Your task to perform on an android device: choose inbox layout in the gmail app Image 0: 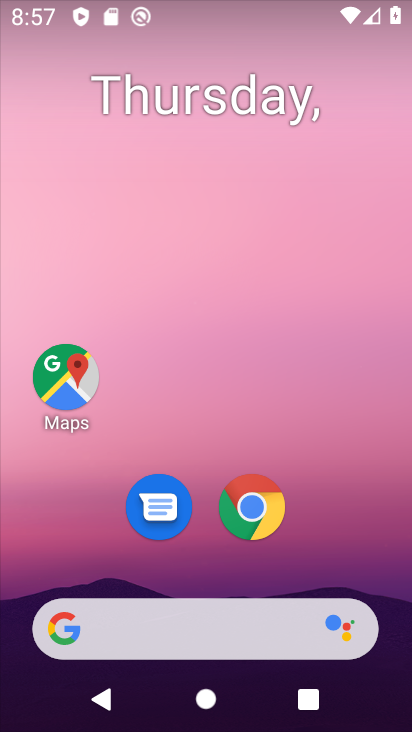
Step 0: drag from (193, 566) to (132, 14)
Your task to perform on an android device: choose inbox layout in the gmail app Image 1: 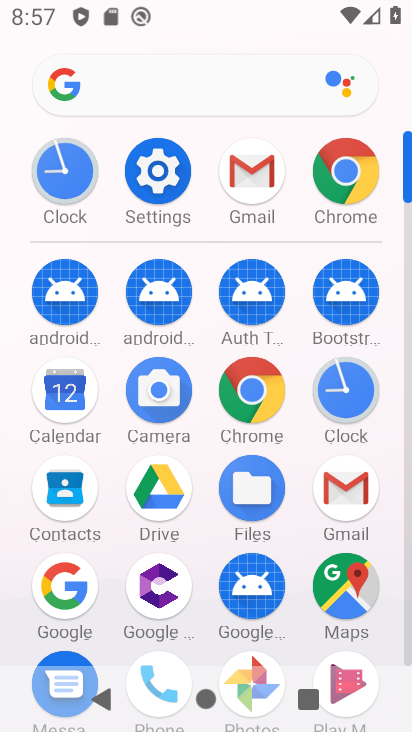
Step 1: click (349, 488)
Your task to perform on an android device: choose inbox layout in the gmail app Image 2: 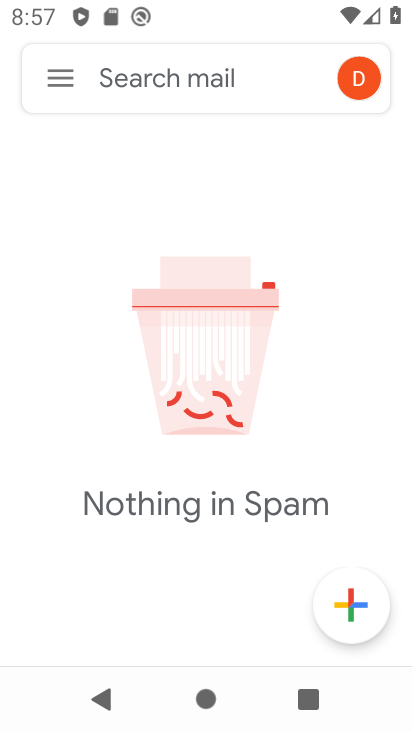
Step 2: click (57, 72)
Your task to perform on an android device: choose inbox layout in the gmail app Image 3: 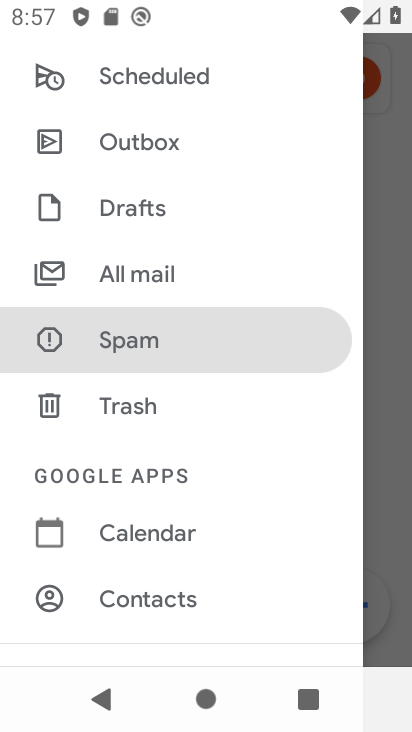
Step 3: drag from (147, 545) to (199, 202)
Your task to perform on an android device: choose inbox layout in the gmail app Image 4: 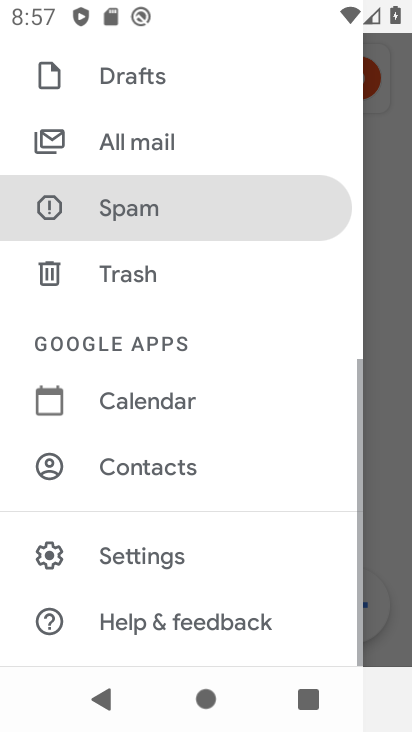
Step 4: click (124, 549)
Your task to perform on an android device: choose inbox layout in the gmail app Image 5: 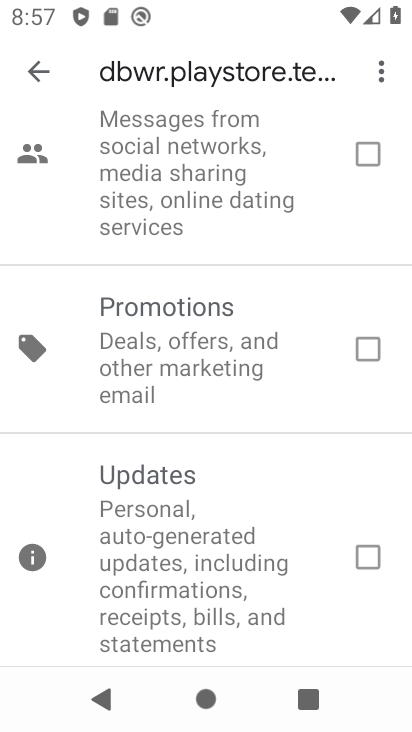
Step 5: drag from (166, 170) to (173, 697)
Your task to perform on an android device: choose inbox layout in the gmail app Image 6: 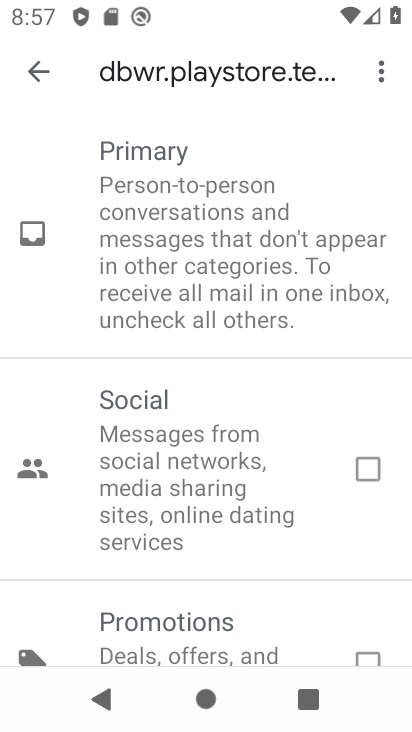
Step 6: click (42, 67)
Your task to perform on an android device: choose inbox layout in the gmail app Image 7: 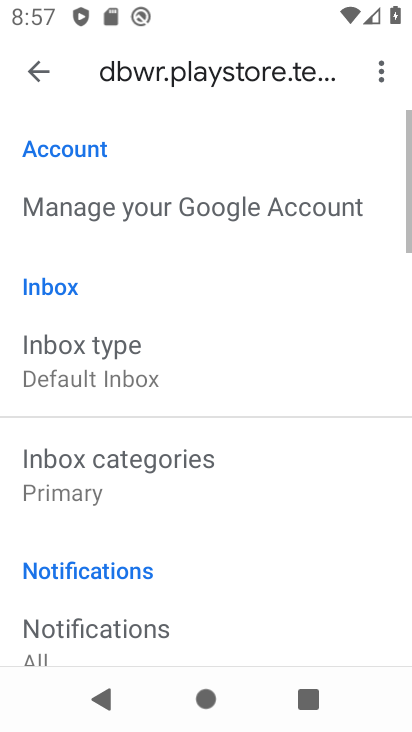
Step 7: click (127, 370)
Your task to perform on an android device: choose inbox layout in the gmail app Image 8: 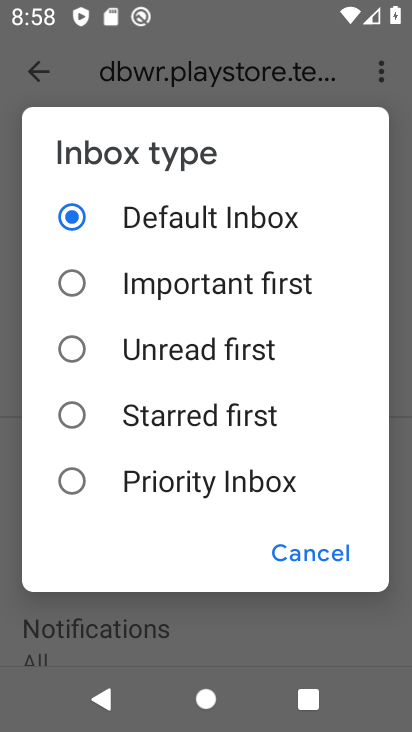
Step 8: click (82, 292)
Your task to perform on an android device: choose inbox layout in the gmail app Image 9: 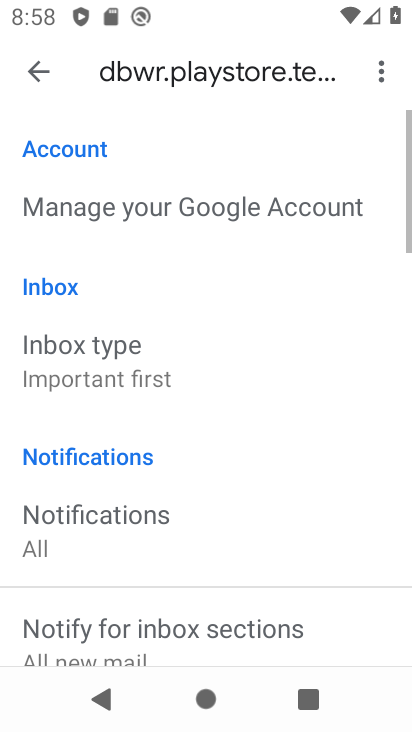
Step 9: task complete